Your task to perform on an android device: change the clock display to show seconds Image 0: 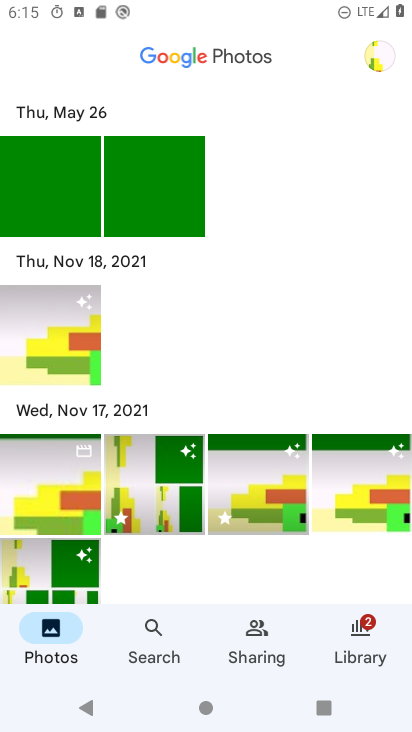
Step 0: press home button
Your task to perform on an android device: change the clock display to show seconds Image 1: 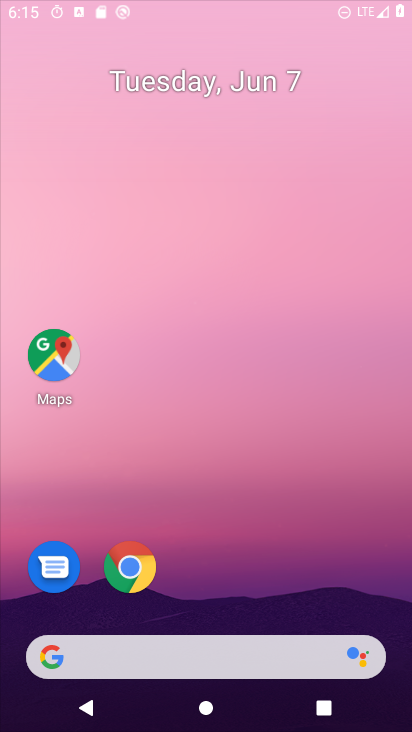
Step 1: drag from (328, 556) to (340, 2)
Your task to perform on an android device: change the clock display to show seconds Image 2: 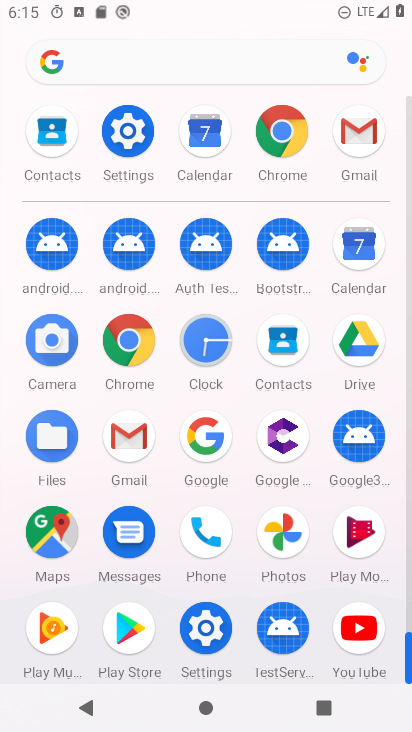
Step 2: click (220, 341)
Your task to perform on an android device: change the clock display to show seconds Image 3: 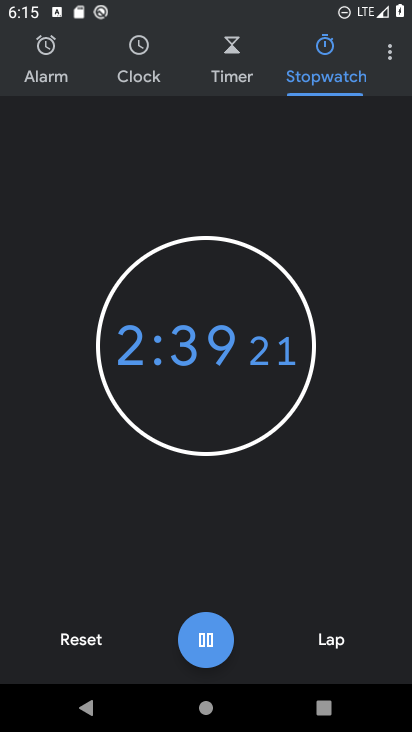
Step 3: click (380, 45)
Your task to perform on an android device: change the clock display to show seconds Image 4: 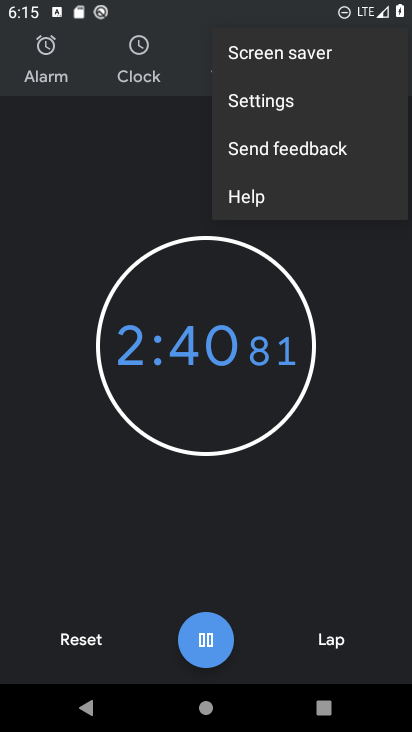
Step 4: click (288, 105)
Your task to perform on an android device: change the clock display to show seconds Image 5: 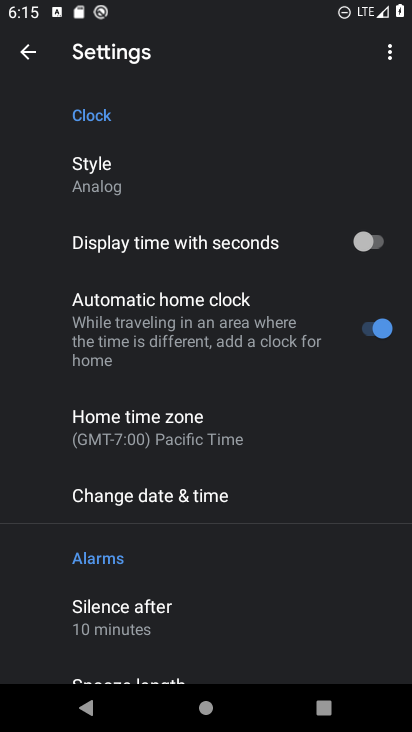
Step 5: click (379, 244)
Your task to perform on an android device: change the clock display to show seconds Image 6: 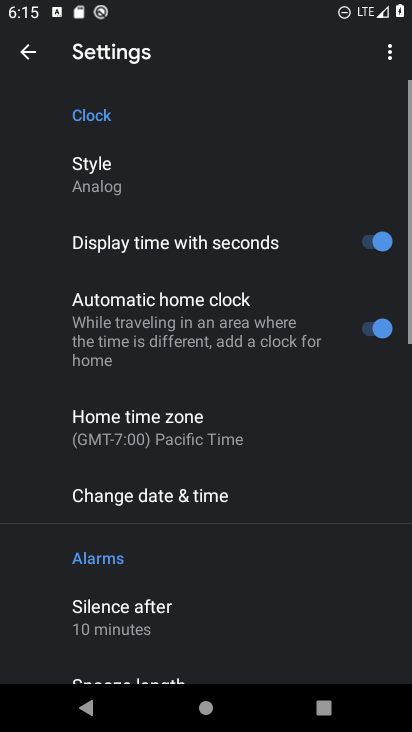
Step 6: task complete